Your task to perform on an android device: Empty the shopping cart on target. Search for "energizer triple a" on target, select the first entry, add it to the cart, then select checkout. Image 0: 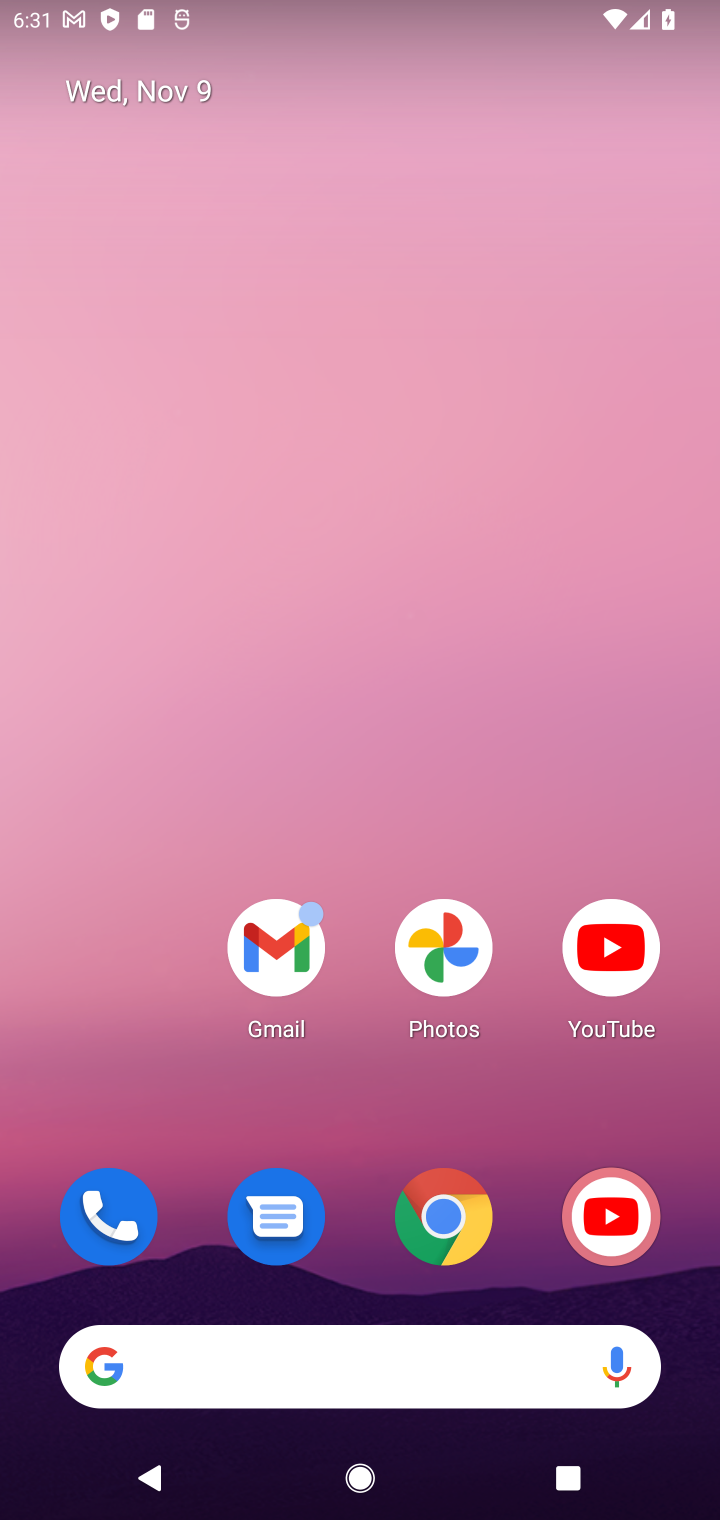
Step 0: drag from (376, 725) to (367, 283)
Your task to perform on an android device: Empty the shopping cart on target. Search for "energizer triple a" on target, select the first entry, add it to the cart, then select checkout. Image 1: 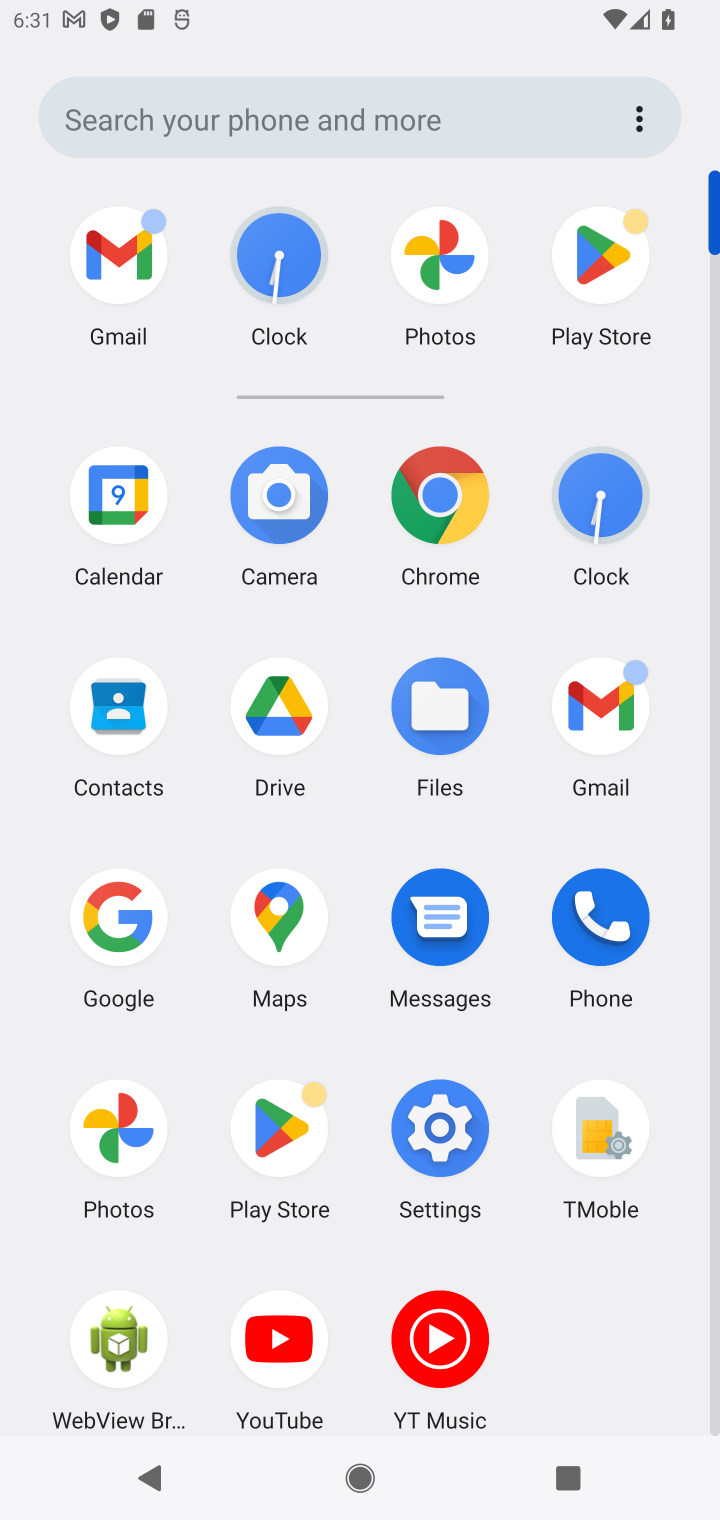
Step 1: click (440, 491)
Your task to perform on an android device: Empty the shopping cart on target. Search for "energizer triple a" on target, select the first entry, add it to the cart, then select checkout. Image 2: 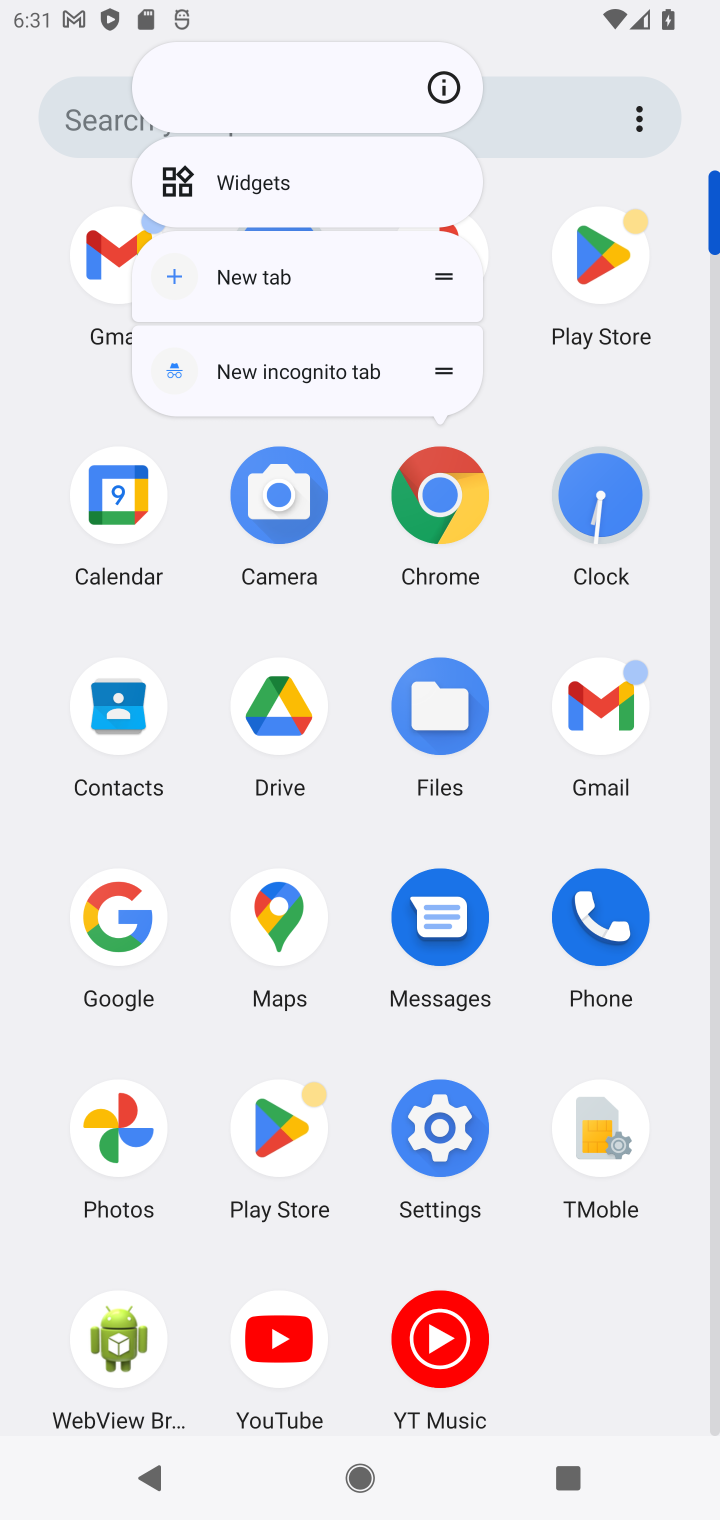
Step 2: click (440, 491)
Your task to perform on an android device: Empty the shopping cart on target. Search for "energizer triple a" on target, select the first entry, add it to the cart, then select checkout. Image 3: 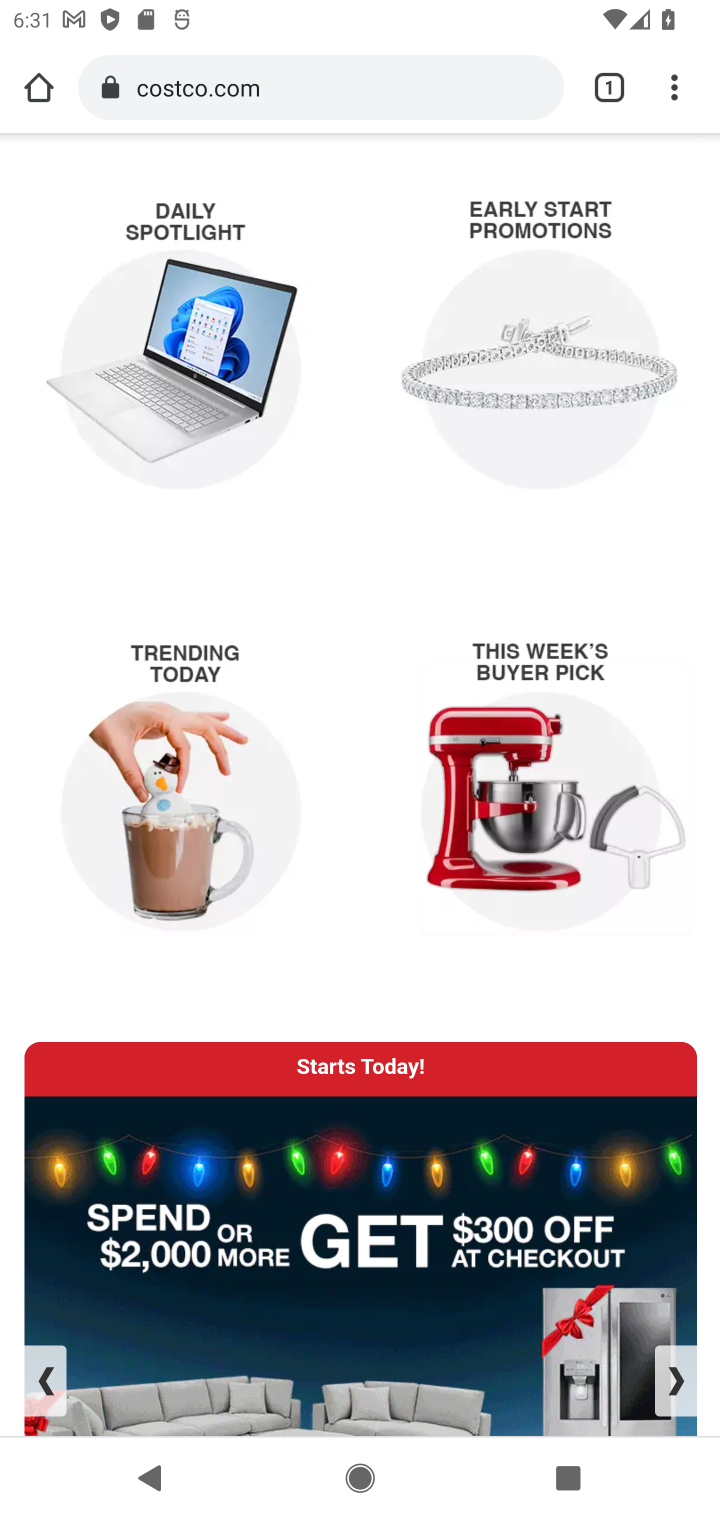
Step 3: click (297, 99)
Your task to perform on an android device: Empty the shopping cart on target. Search for "energizer triple a" on target, select the first entry, add it to the cart, then select checkout. Image 4: 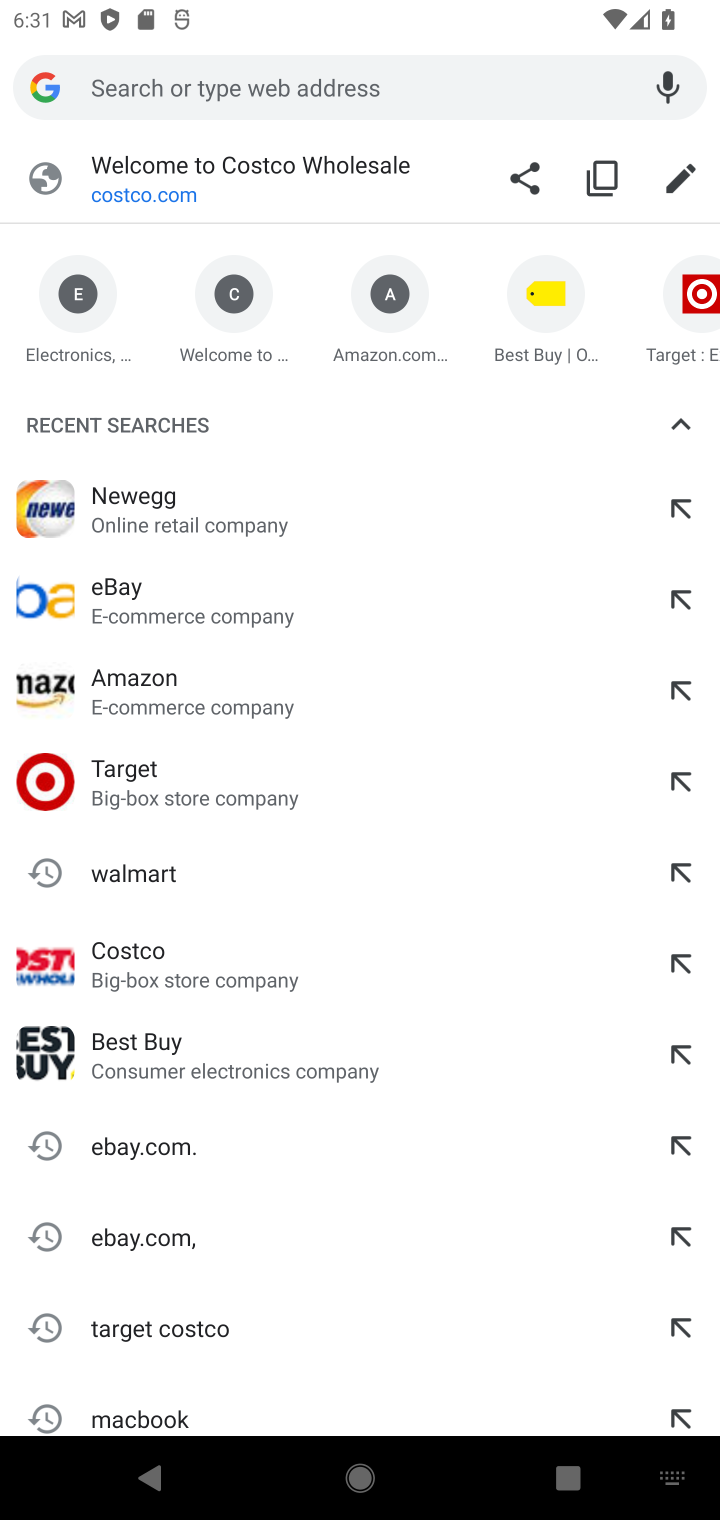
Step 4: type "target.com"
Your task to perform on an android device: Empty the shopping cart on target. Search for "energizer triple a" on target, select the first entry, add it to the cart, then select checkout. Image 5: 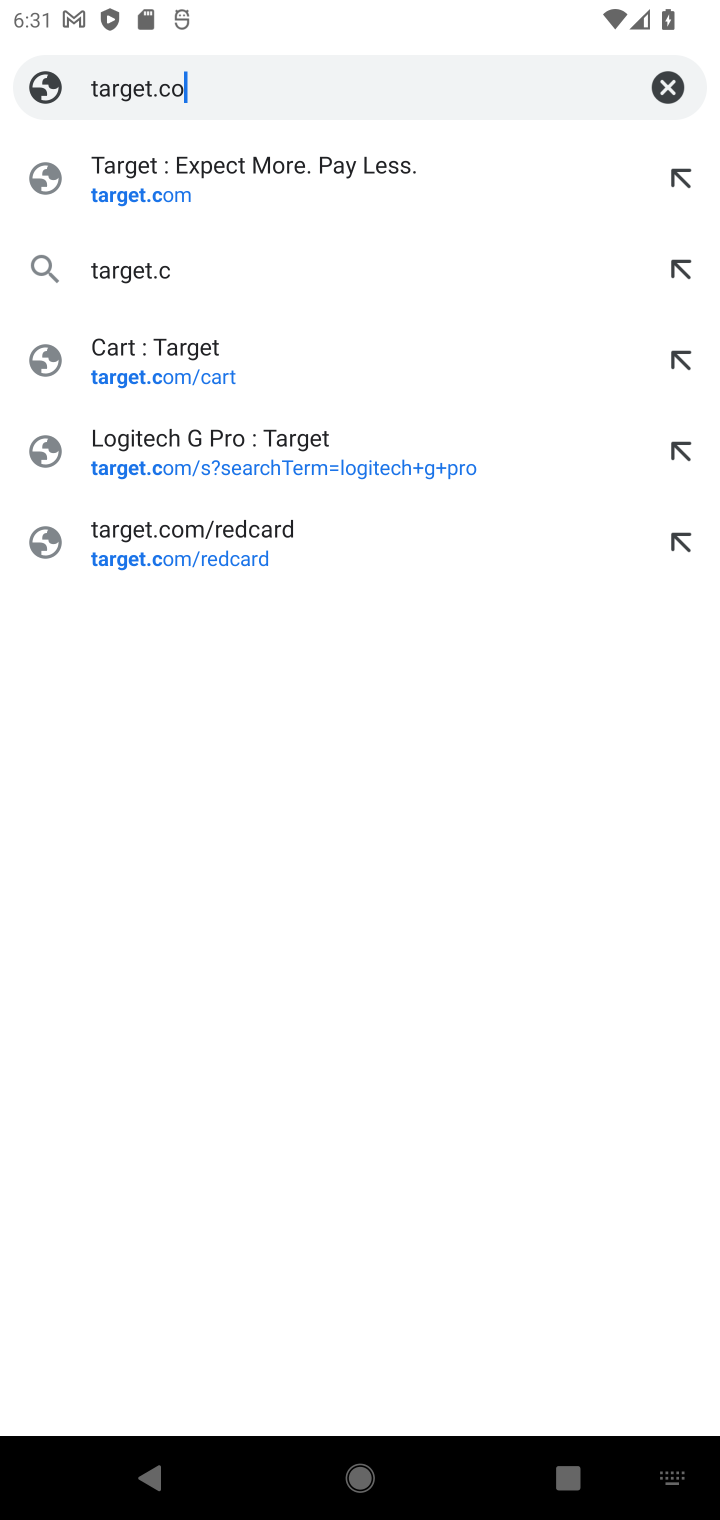
Step 5: press enter
Your task to perform on an android device: Empty the shopping cart on target. Search for "energizer triple a" on target, select the first entry, add it to the cart, then select checkout. Image 6: 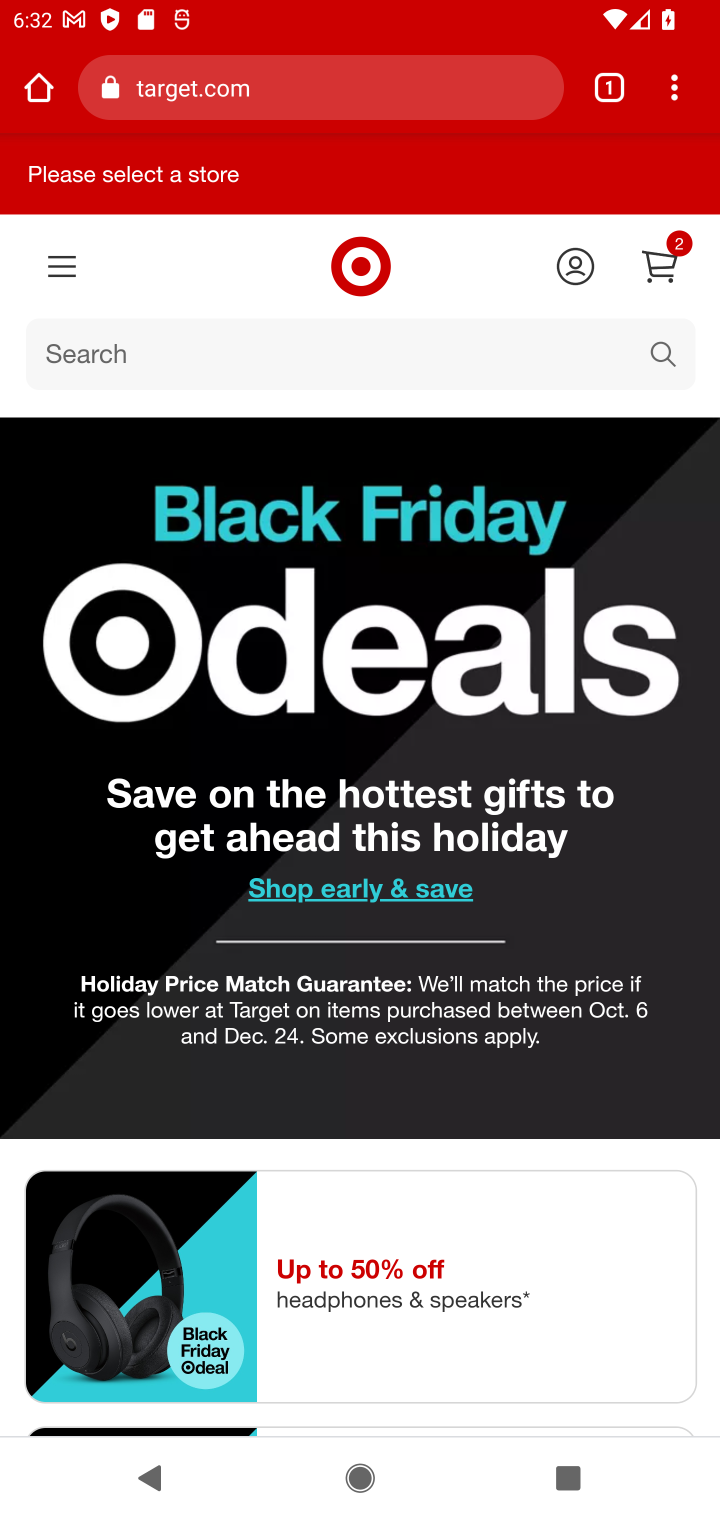
Step 6: click (654, 274)
Your task to perform on an android device: Empty the shopping cart on target. Search for "energizer triple a" on target, select the first entry, add it to the cart, then select checkout. Image 7: 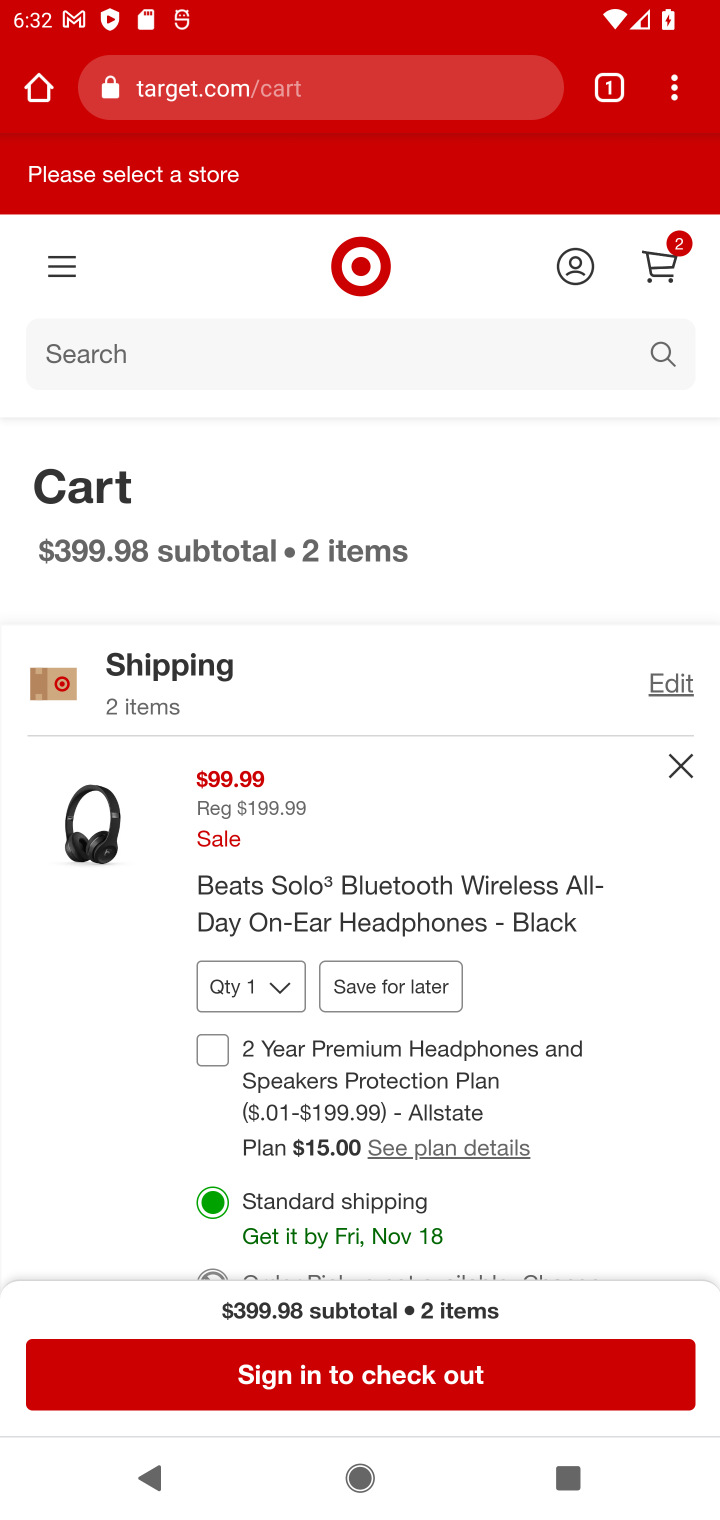
Step 7: click (678, 773)
Your task to perform on an android device: Empty the shopping cart on target. Search for "energizer triple a" on target, select the first entry, add it to the cart, then select checkout. Image 8: 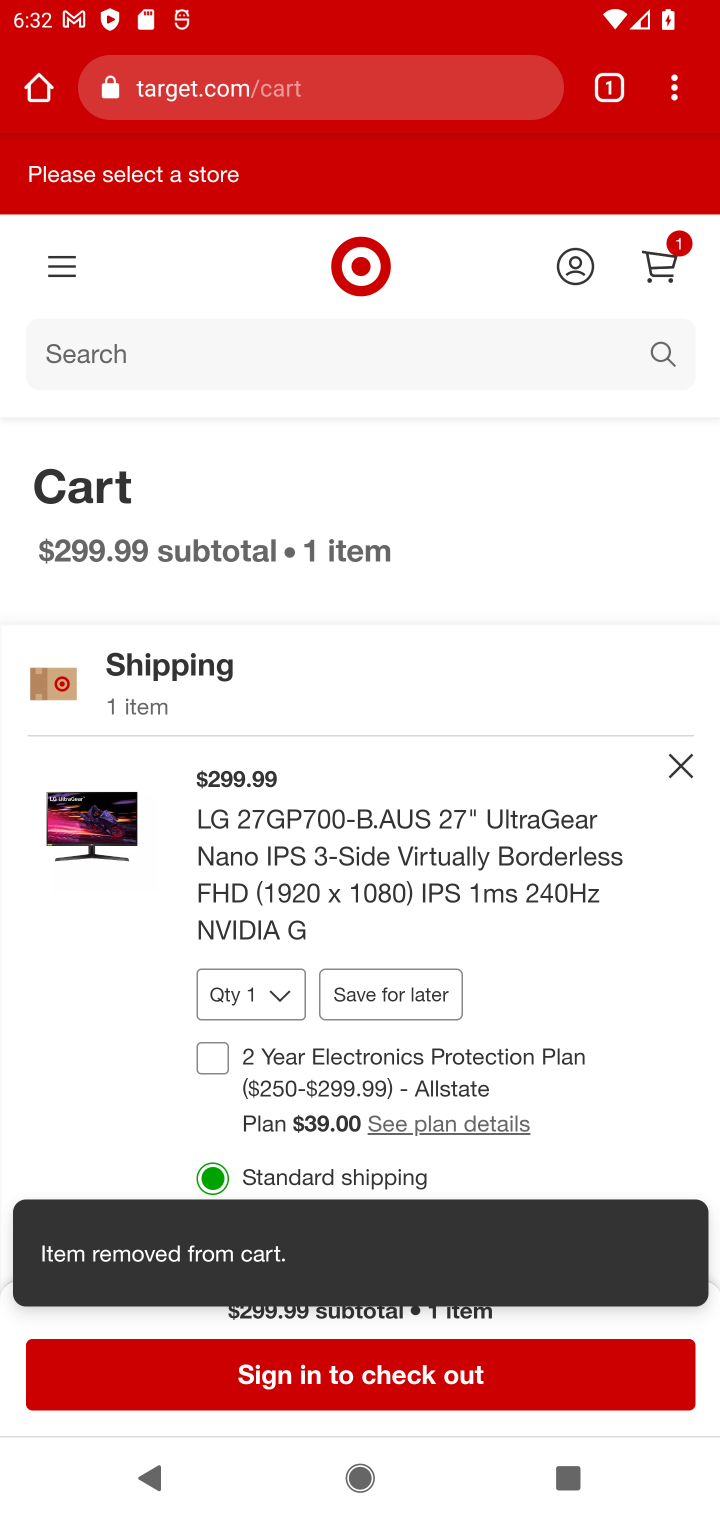
Step 8: click (678, 773)
Your task to perform on an android device: Empty the shopping cart on target. Search for "energizer triple a" on target, select the first entry, add it to the cart, then select checkout. Image 9: 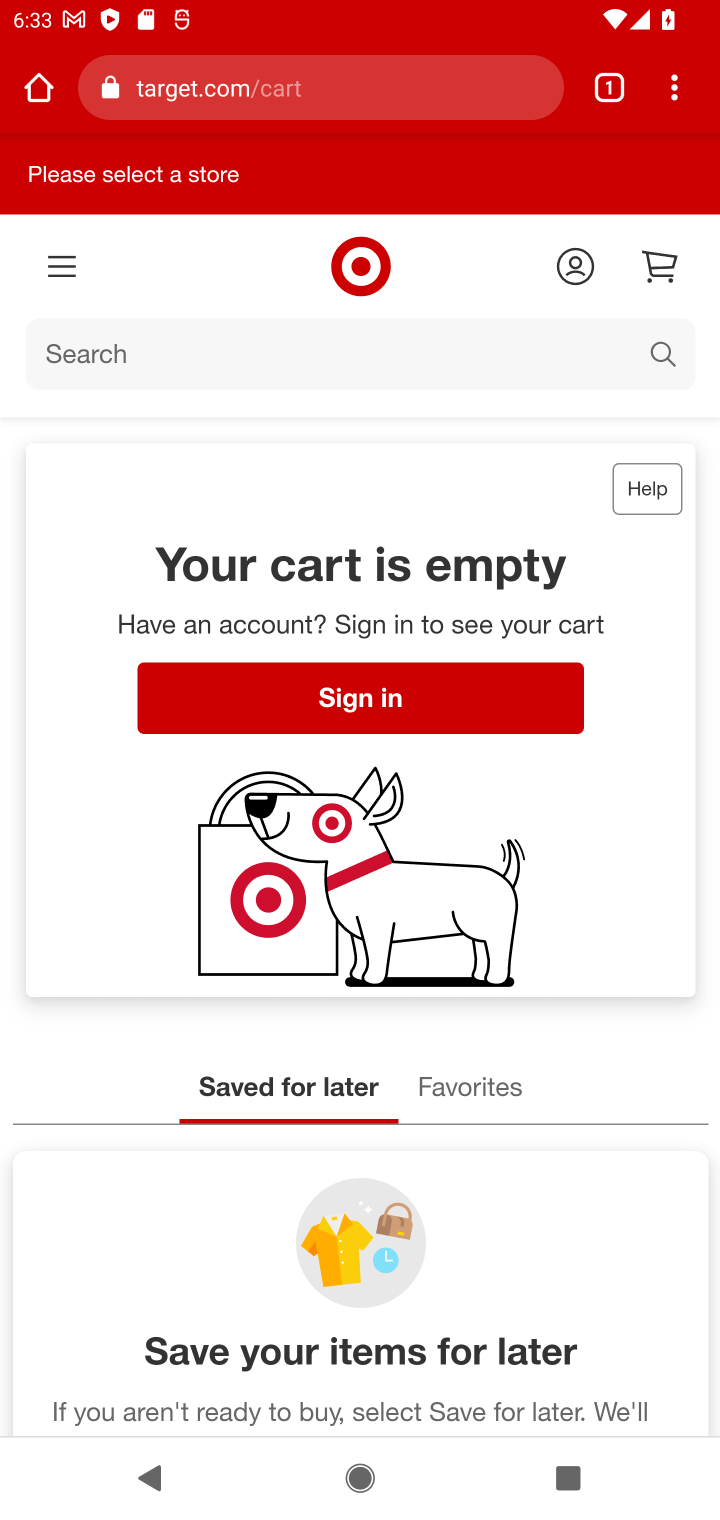
Step 9: click (439, 367)
Your task to perform on an android device: Empty the shopping cart on target. Search for "energizer triple a" on target, select the first entry, add it to the cart, then select checkout. Image 10: 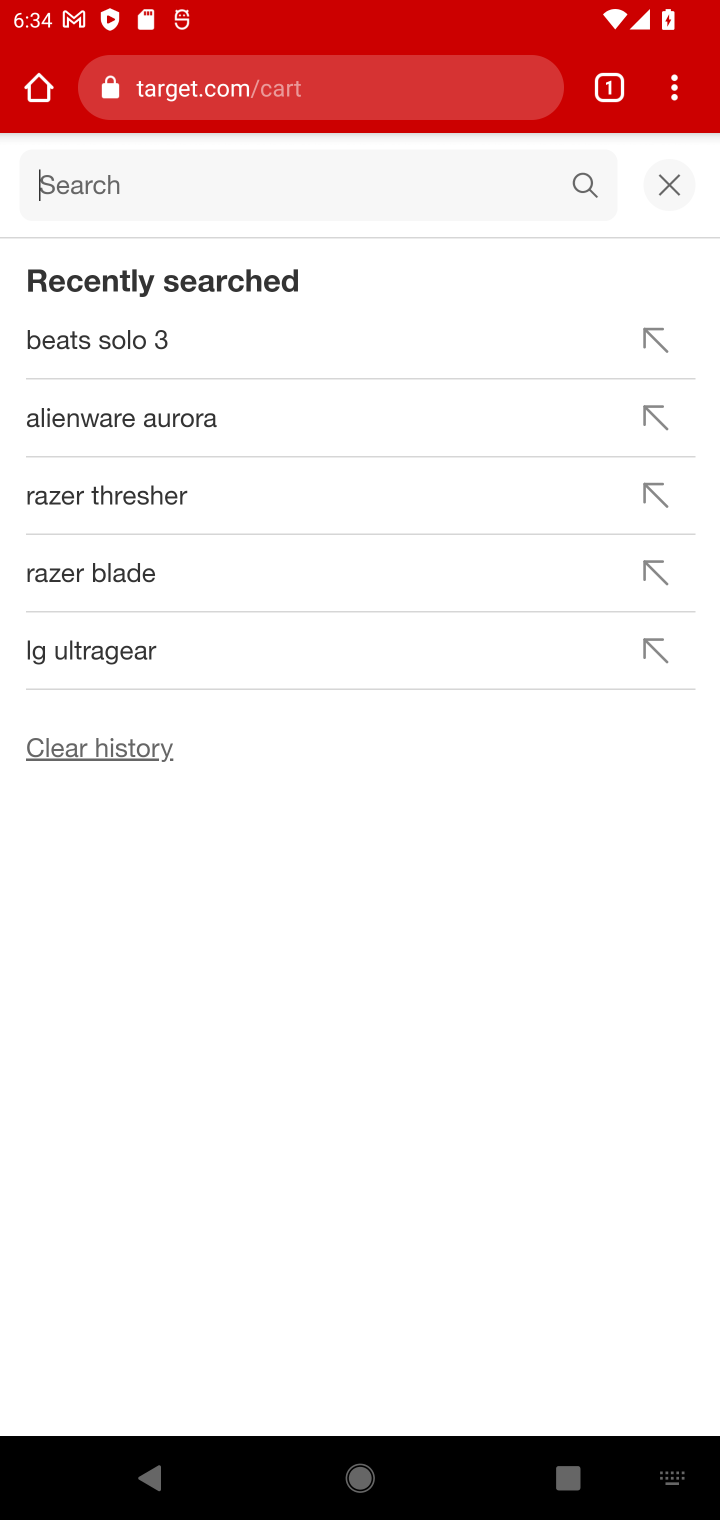
Step 10: type "energizer triple a"
Your task to perform on an android device: Empty the shopping cart on target. Search for "energizer triple a" on target, select the first entry, add it to the cart, then select checkout. Image 11: 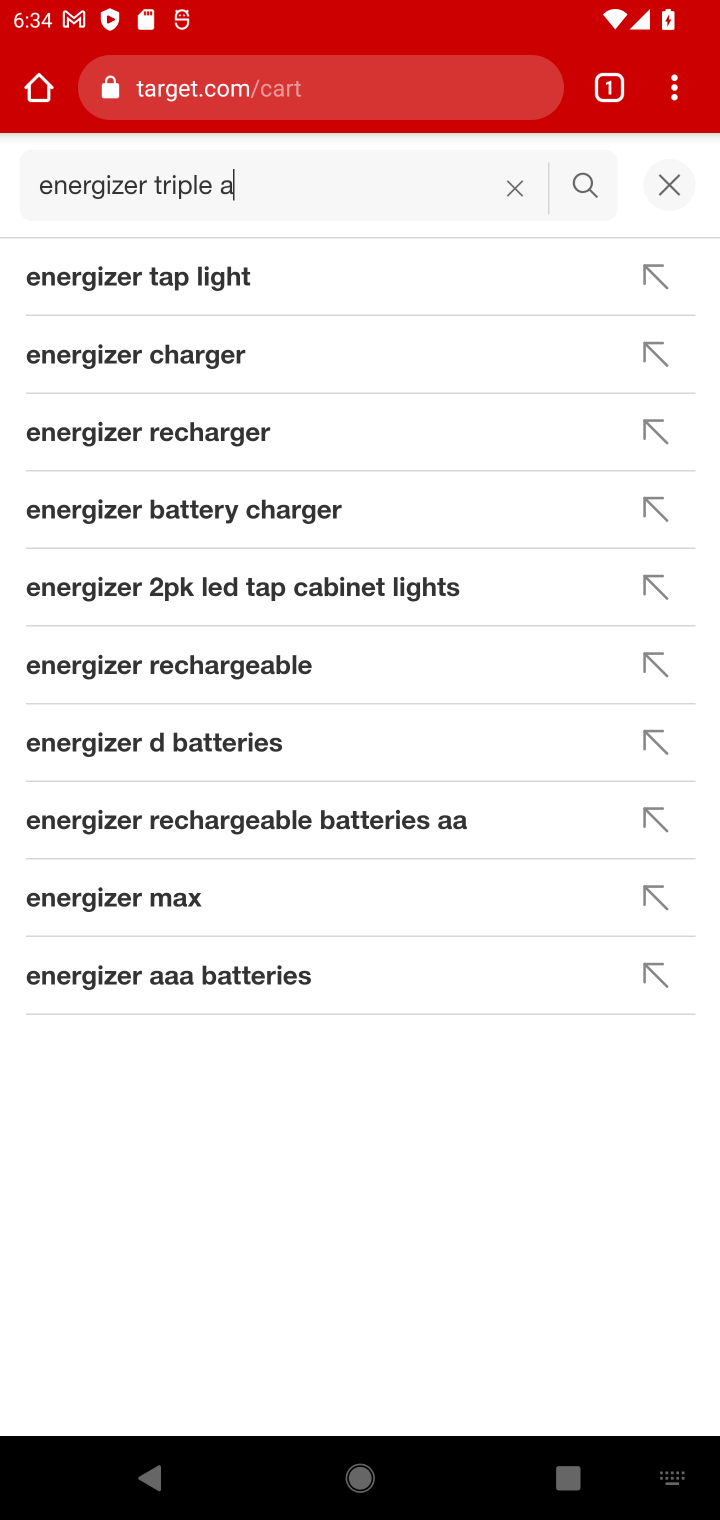
Step 11: press enter
Your task to perform on an android device: Empty the shopping cart on target. Search for "energizer triple a" on target, select the first entry, add it to the cart, then select checkout. Image 12: 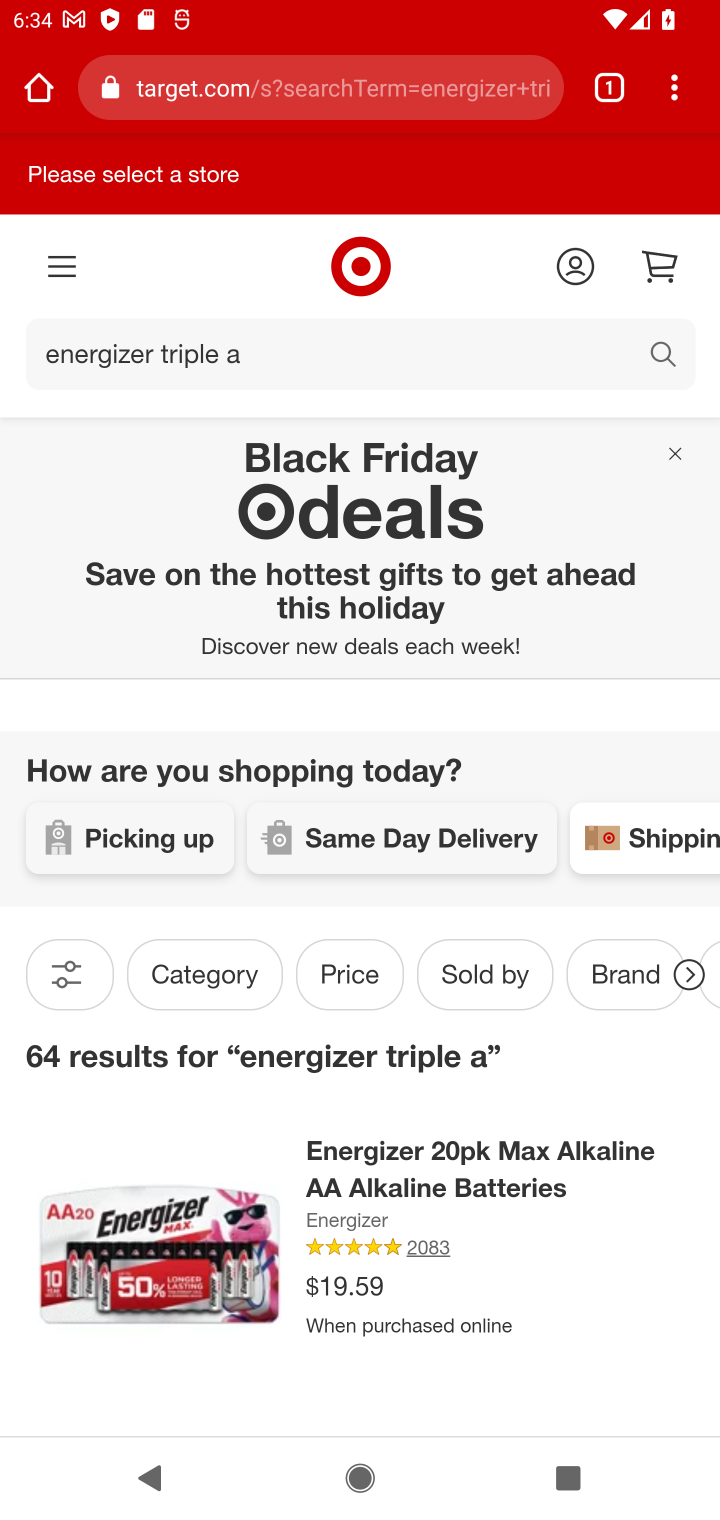
Step 12: drag from (510, 1134) to (487, 411)
Your task to perform on an android device: Empty the shopping cart on target. Search for "energizer triple a" on target, select the first entry, add it to the cart, then select checkout. Image 13: 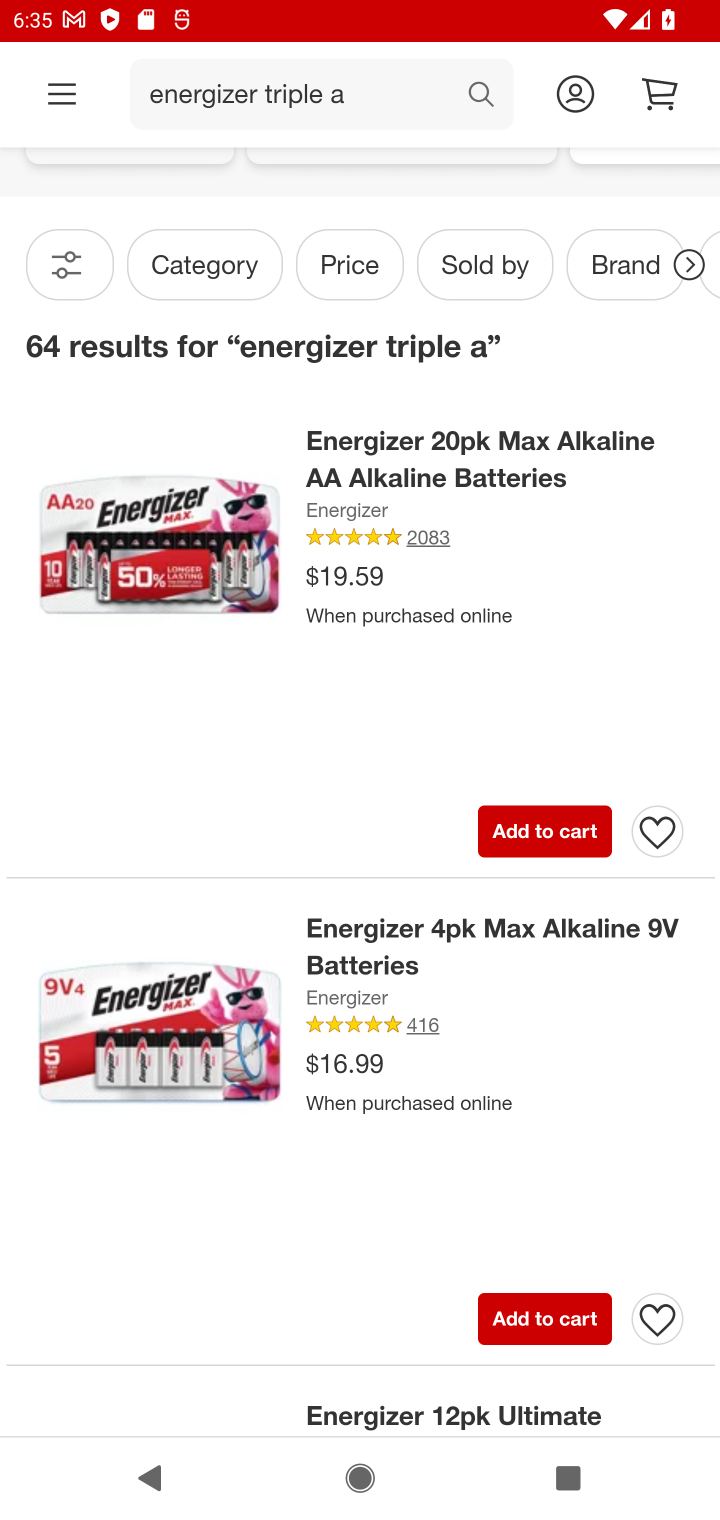
Step 13: click (540, 836)
Your task to perform on an android device: Empty the shopping cart on target. Search for "energizer triple a" on target, select the first entry, add it to the cart, then select checkout. Image 14: 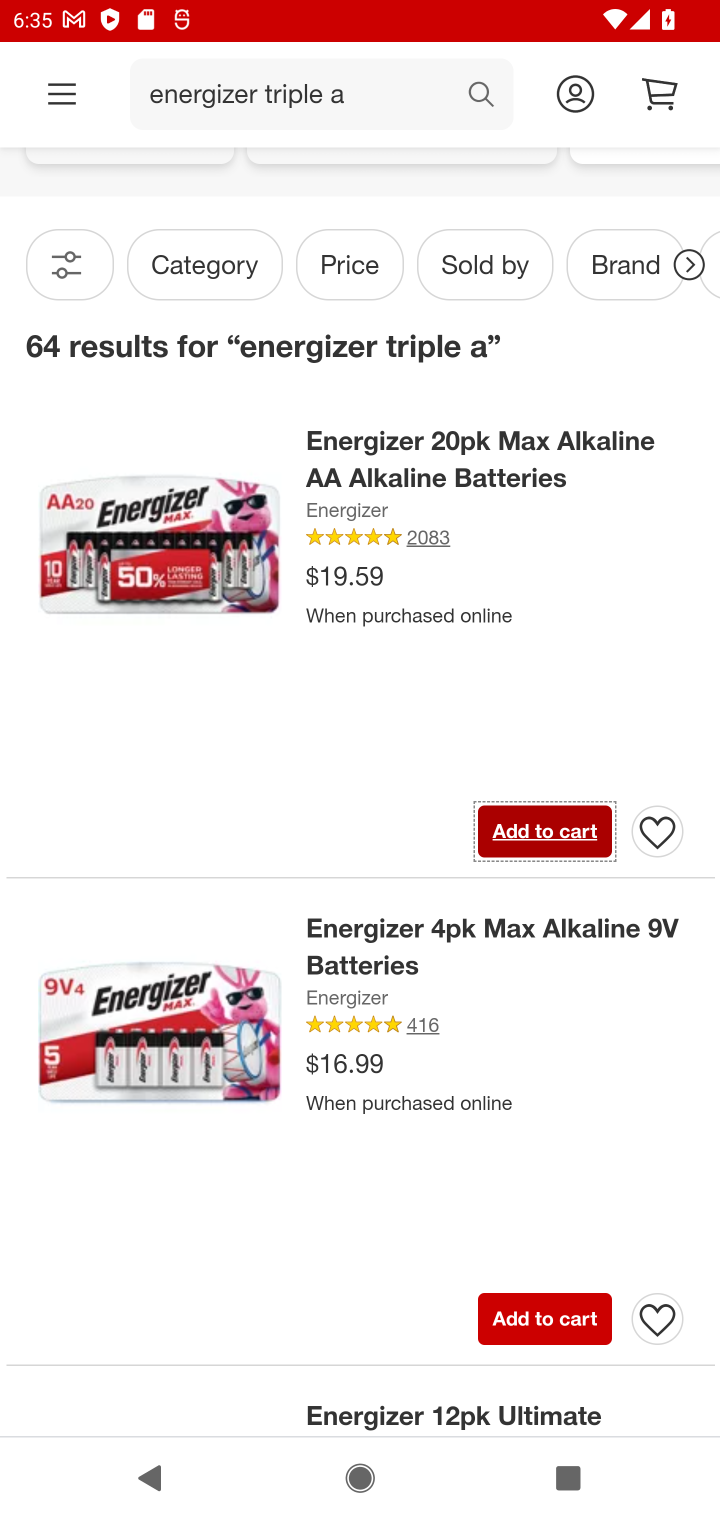
Step 14: click (553, 831)
Your task to perform on an android device: Empty the shopping cart on target. Search for "energizer triple a" on target, select the first entry, add it to the cart, then select checkout. Image 15: 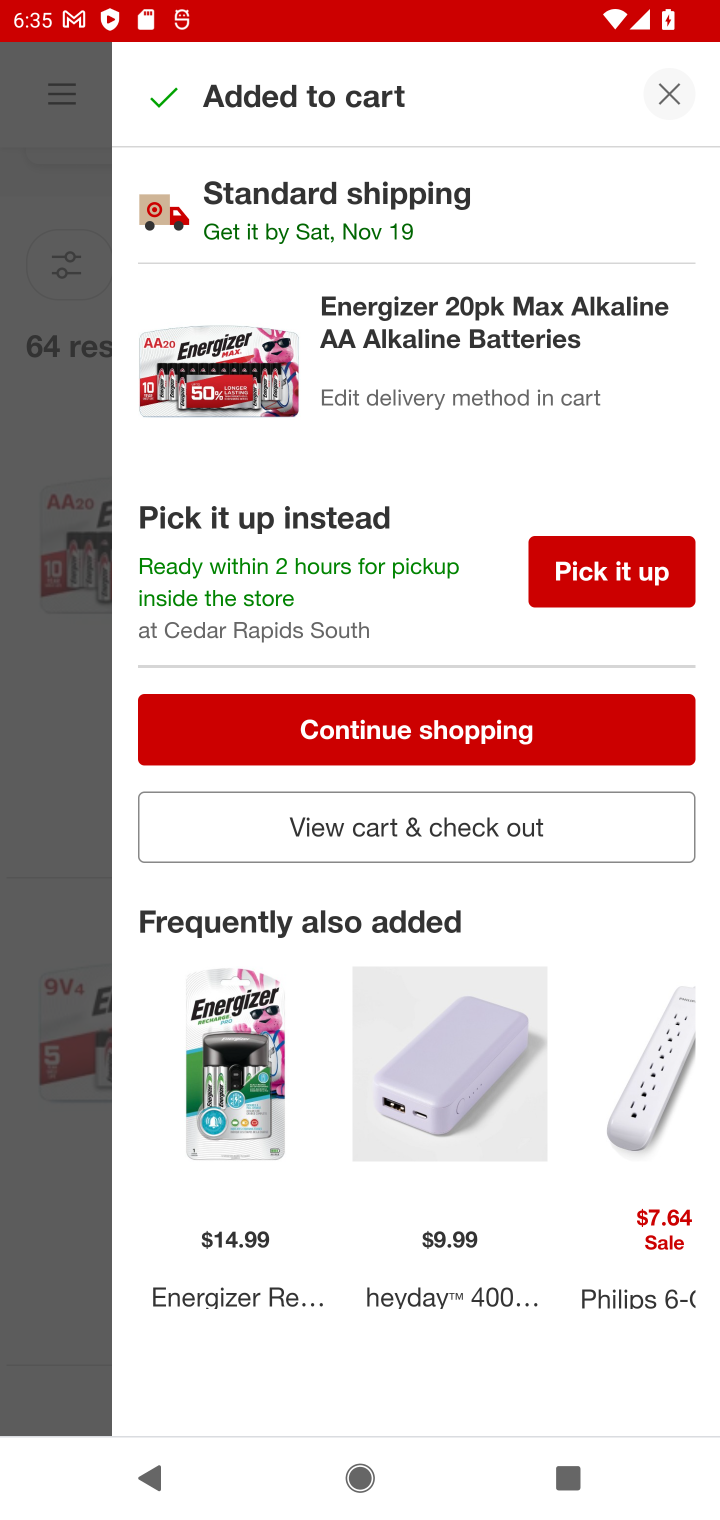
Step 15: click (511, 837)
Your task to perform on an android device: Empty the shopping cart on target. Search for "energizer triple a" on target, select the first entry, add it to the cart, then select checkout. Image 16: 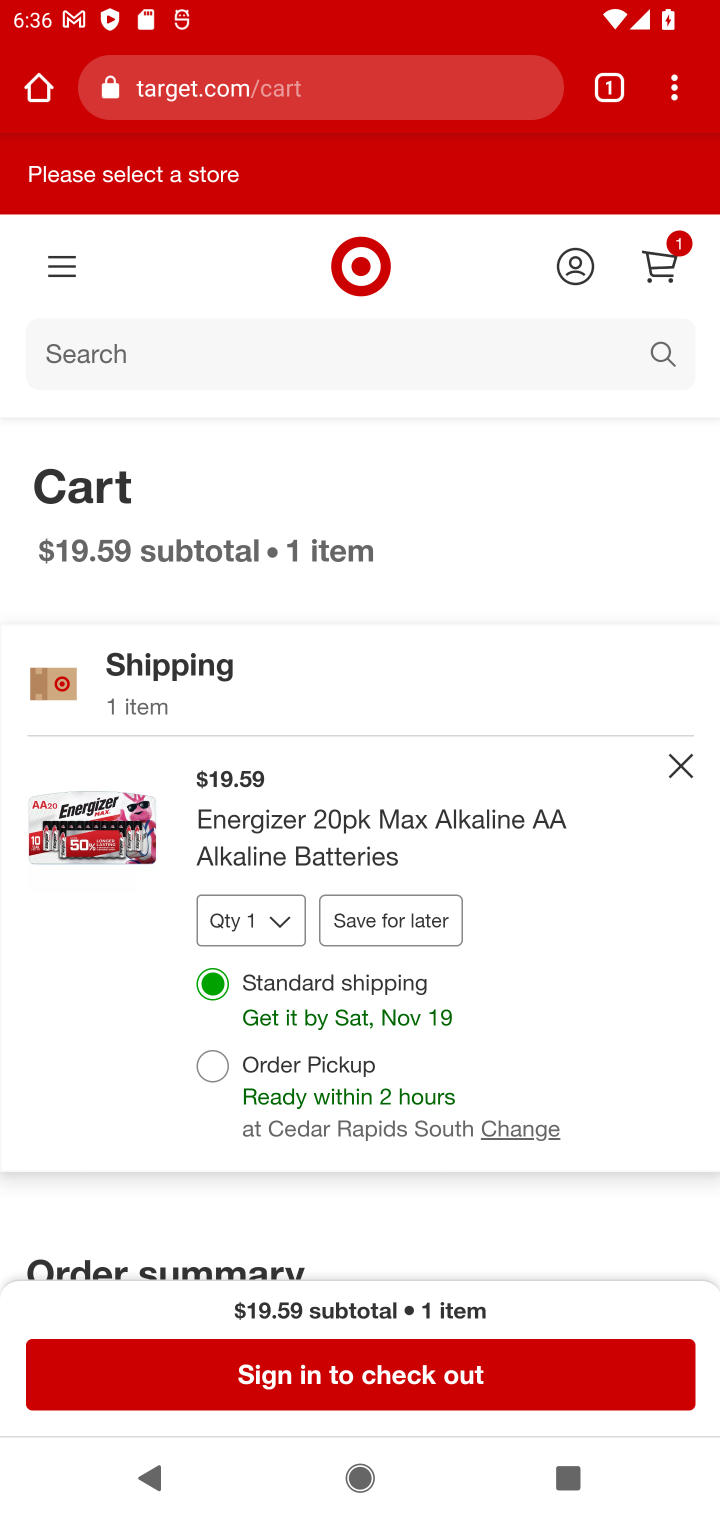
Step 16: click (426, 1386)
Your task to perform on an android device: Empty the shopping cart on target. Search for "energizer triple a" on target, select the first entry, add it to the cart, then select checkout. Image 17: 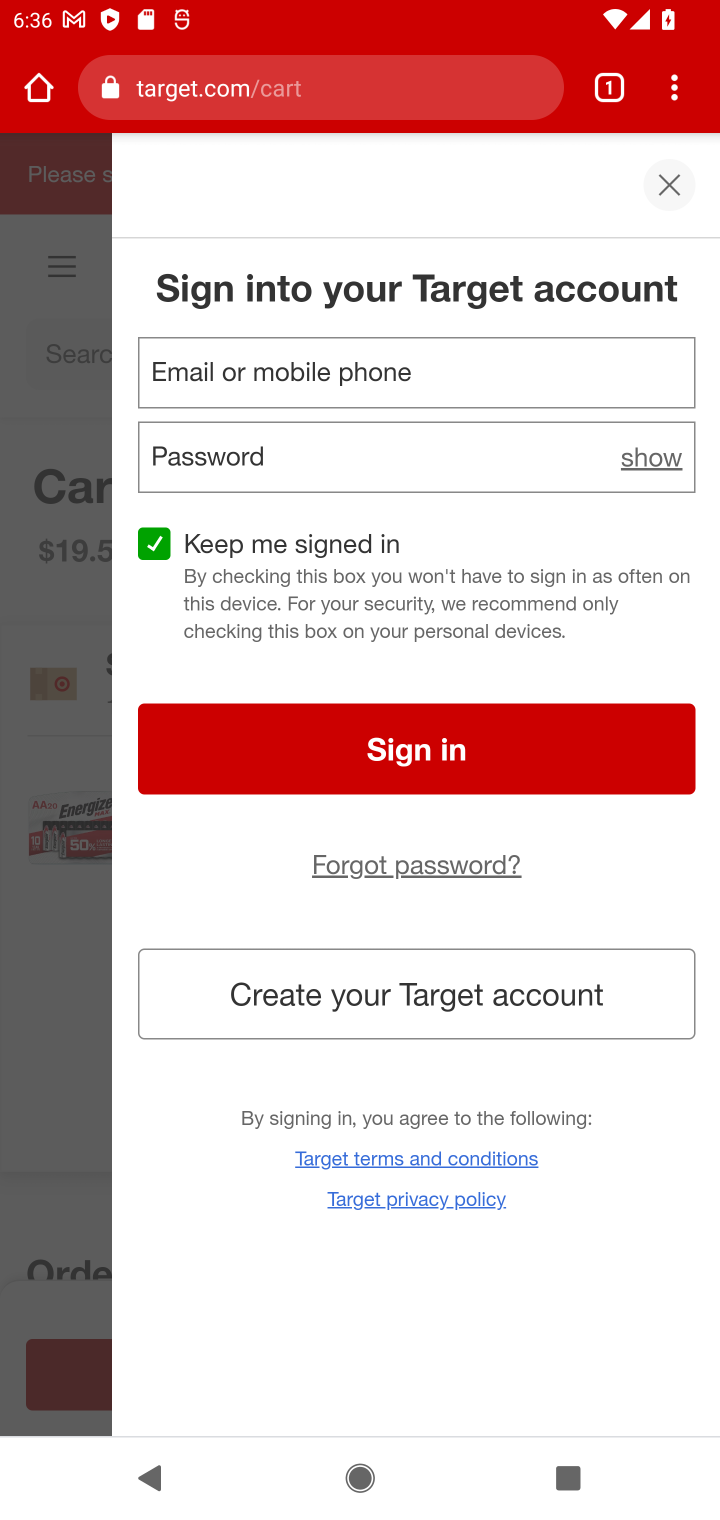
Step 17: task complete